Your task to perform on an android device: Go to display settings Image 0: 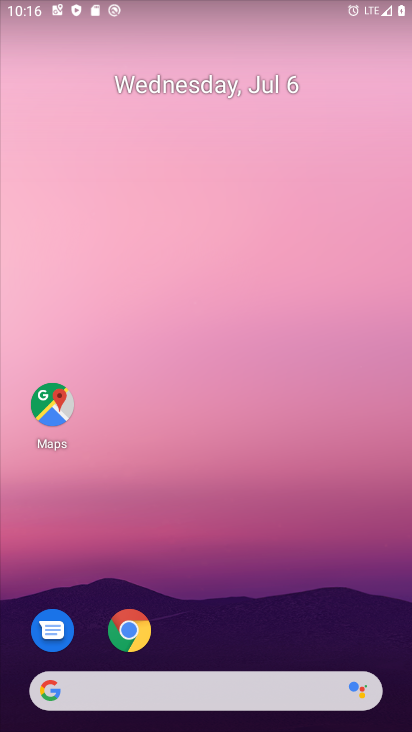
Step 0: drag from (354, 637) to (314, 119)
Your task to perform on an android device: Go to display settings Image 1: 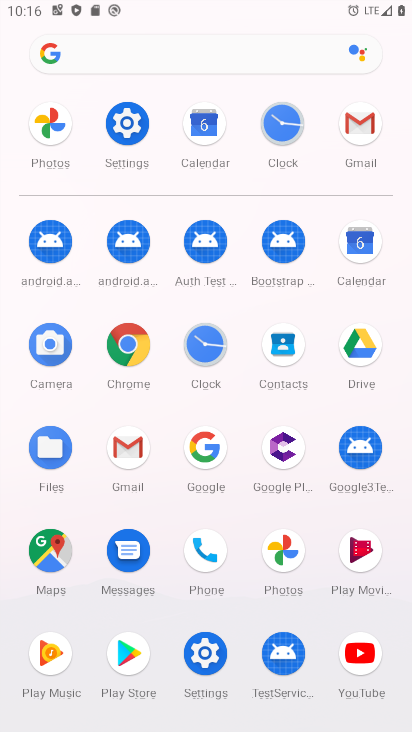
Step 1: click (207, 655)
Your task to perform on an android device: Go to display settings Image 2: 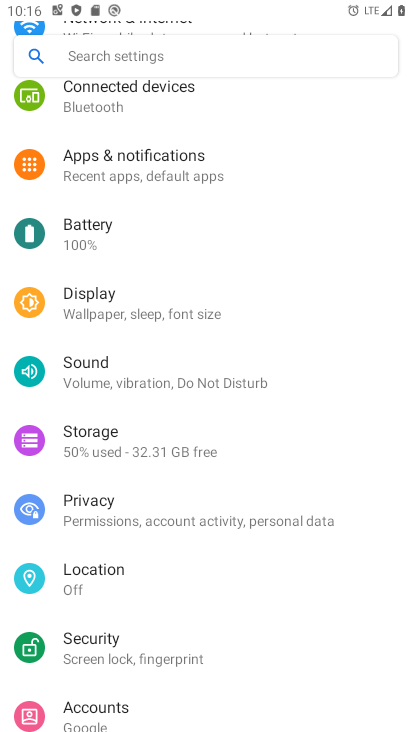
Step 2: click (103, 318)
Your task to perform on an android device: Go to display settings Image 3: 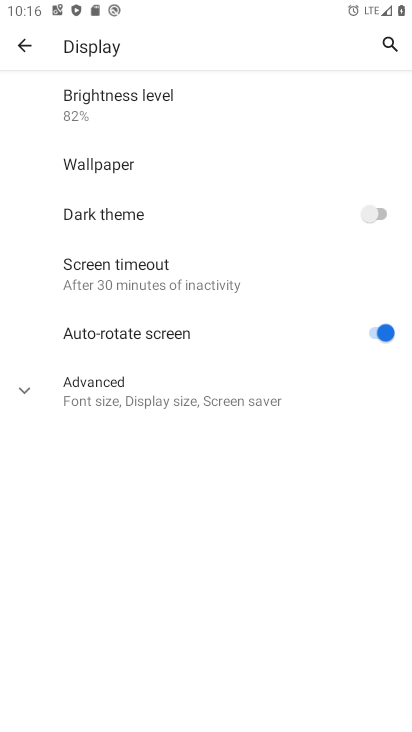
Step 3: click (21, 386)
Your task to perform on an android device: Go to display settings Image 4: 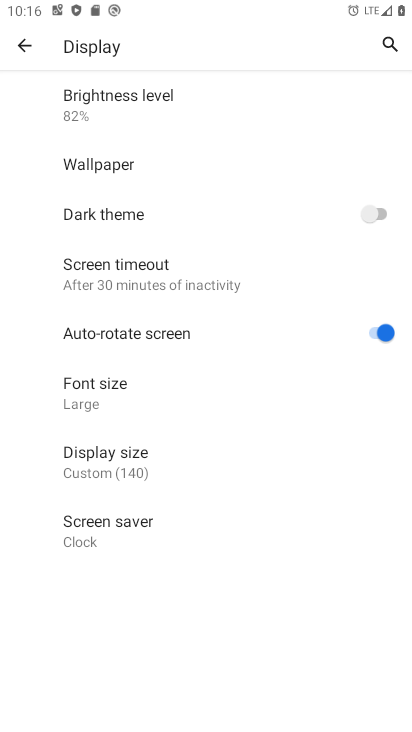
Step 4: task complete